Your task to perform on an android device: turn on javascript in the chrome app Image 0: 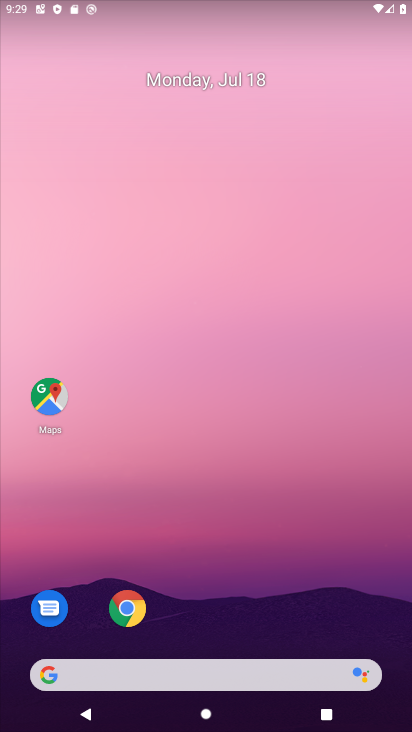
Step 0: drag from (204, 629) to (232, 10)
Your task to perform on an android device: turn on javascript in the chrome app Image 1: 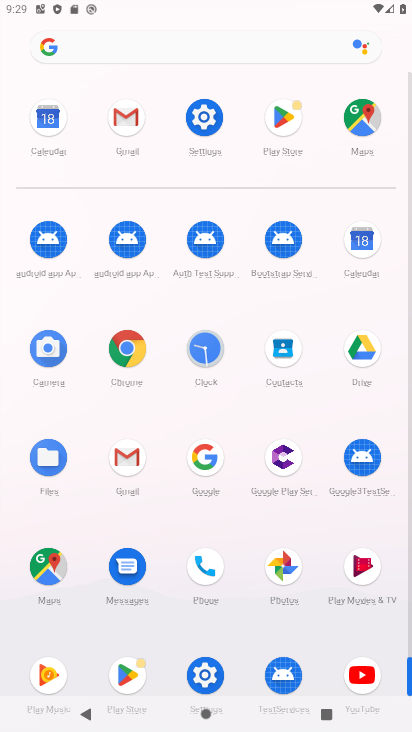
Step 1: click (129, 350)
Your task to perform on an android device: turn on javascript in the chrome app Image 2: 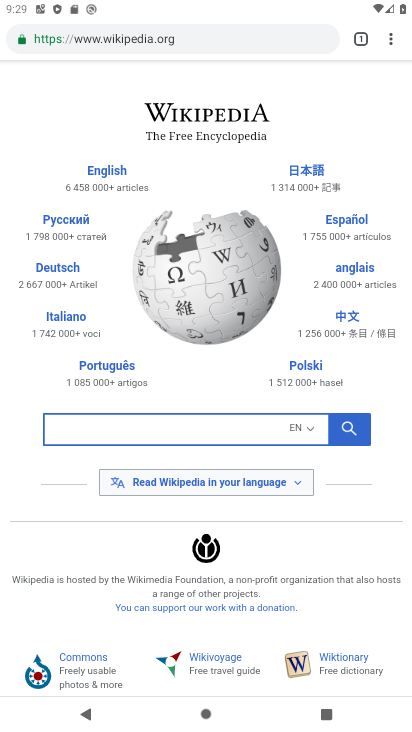
Step 2: click (386, 34)
Your task to perform on an android device: turn on javascript in the chrome app Image 3: 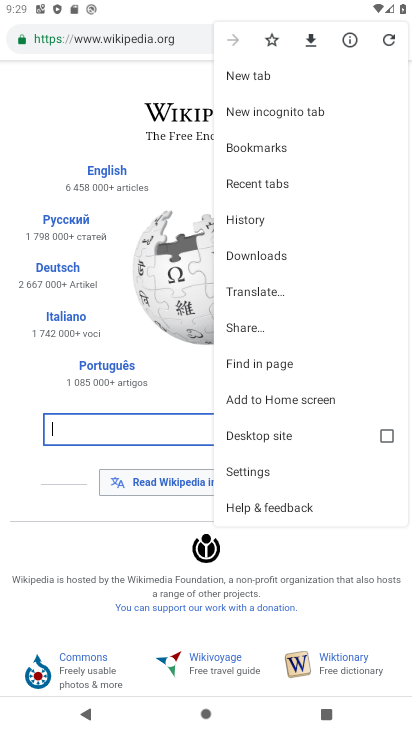
Step 3: click (271, 474)
Your task to perform on an android device: turn on javascript in the chrome app Image 4: 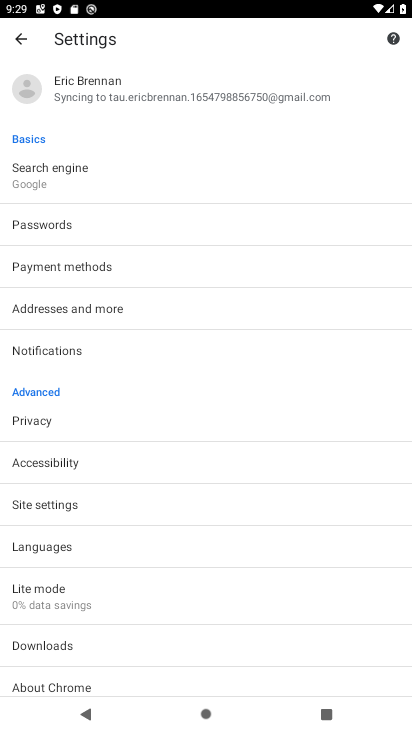
Step 4: click (65, 503)
Your task to perform on an android device: turn on javascript in the chrome app Image 5: 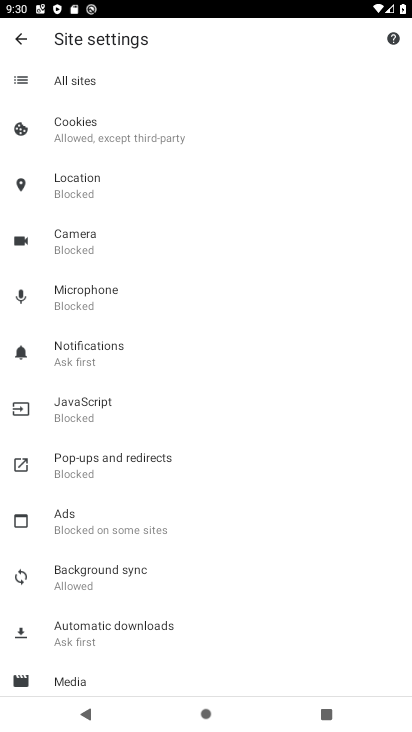
Step 5: click (79, 414)
Your task to perform on an android device: turn on javascript in the chrome app Image 6: 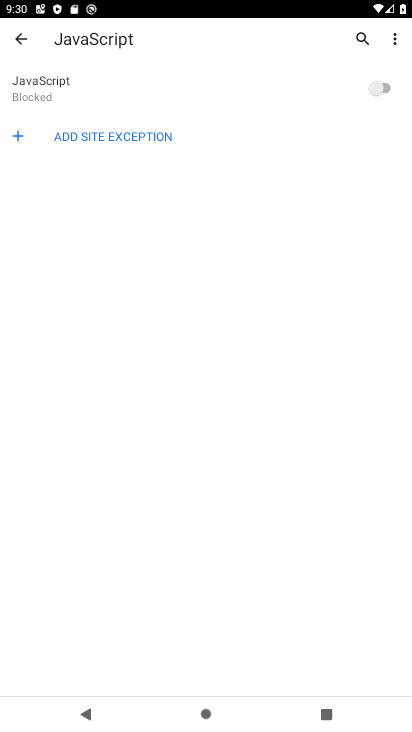
Step 6: click (404, 89)
Your task to perform on an android device: turn on javascript in the chrome app Image 7: 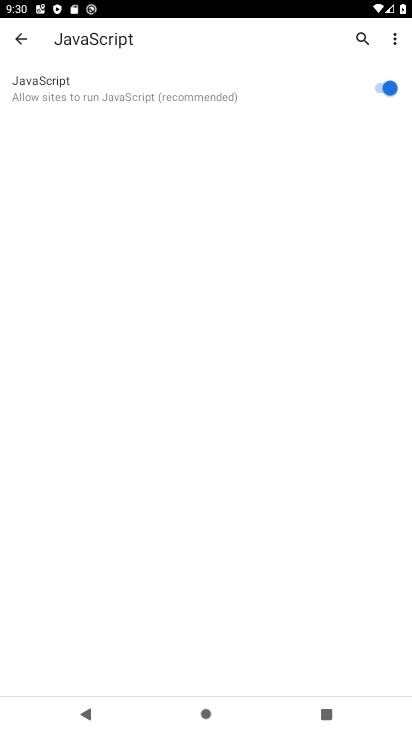
Step 7: task complete